Your task to perform on an android device: check android version Image 0: 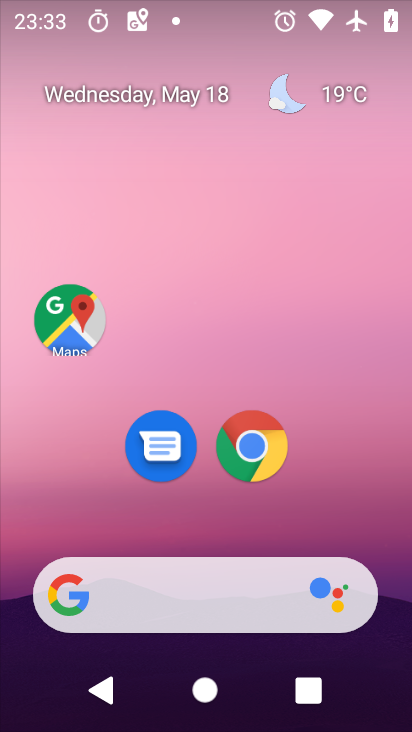
Step 0: press home button
Your task to perform on an android device: check android version Image 1: 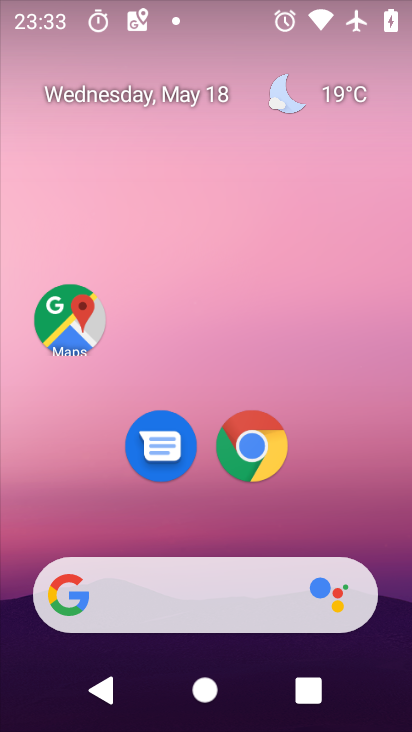
Step 1: drag from (221, 601) to (335, 42)
Your task to perform on an android device: check android version Image 2: 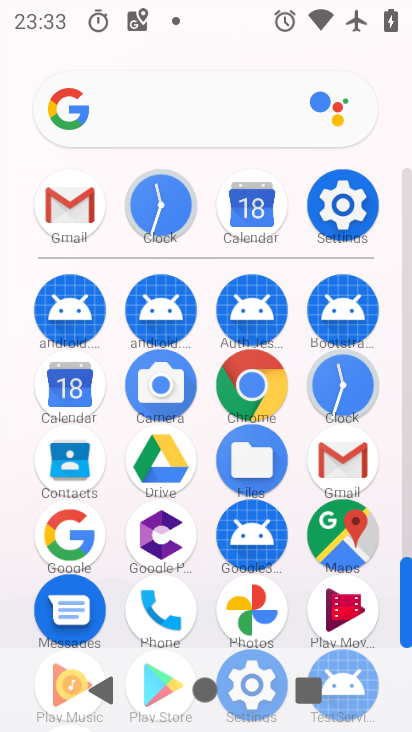
Step 2: click (345, 211)
Your task to perform on an android device: check android version Image 3: 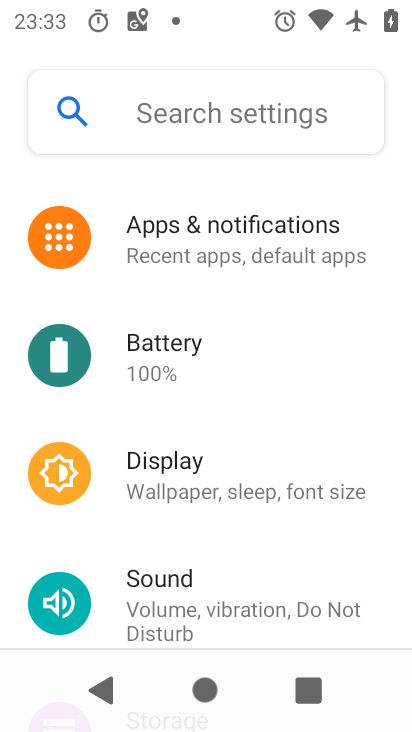
Step 3: drag from (241, 576) to (351, 69)
Your task to perform on an android device: check android version Image 4: 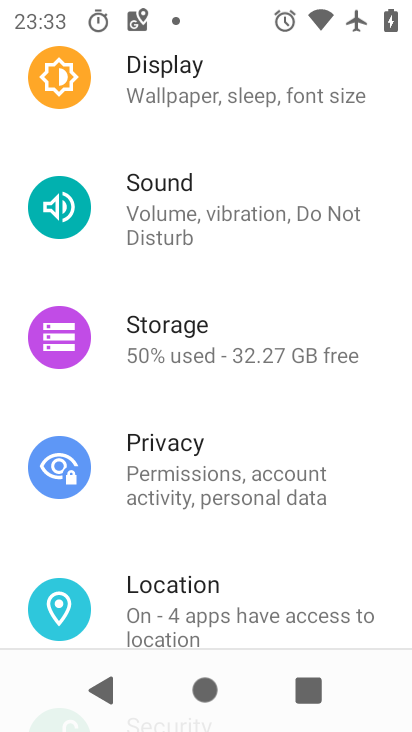
Step 4: drag from (242, 562) to (369, 47)
Your task to perform on an android device: check android version Image 5: 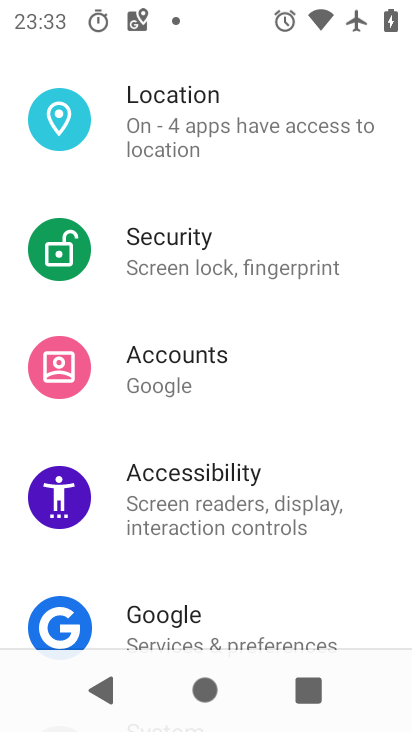
Step 5: drag from (248, 601) to (346, 3)
Your task to perform on an android device: check android version Image 6: 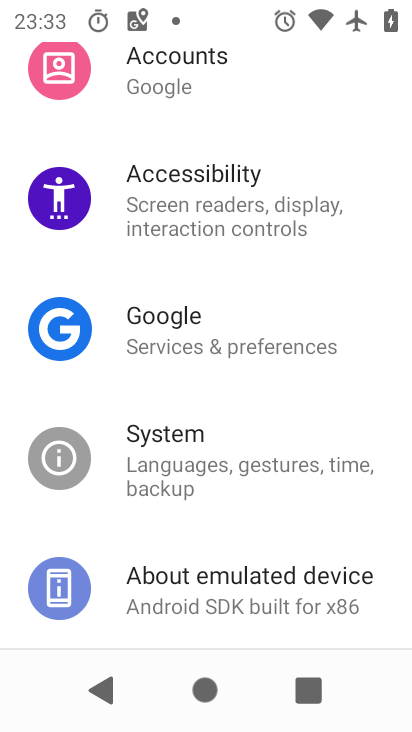
Step 6: click (203, 588)
Your task to perform on an android device: check android version Image 7: 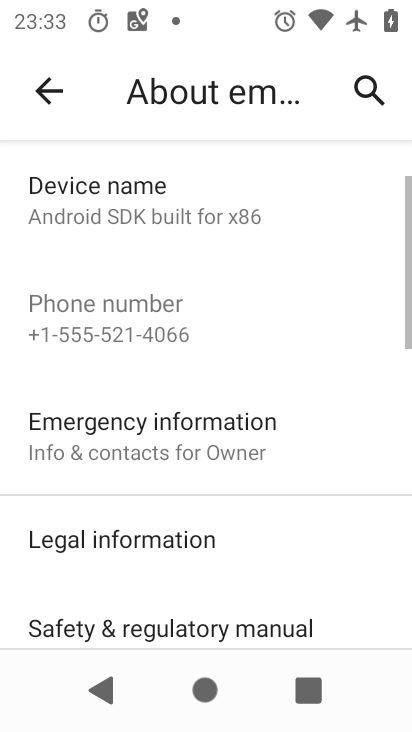
Step 7: drag from (207, 579) to (379, 116)
Your task to perform on an android device: check android version Image 8: 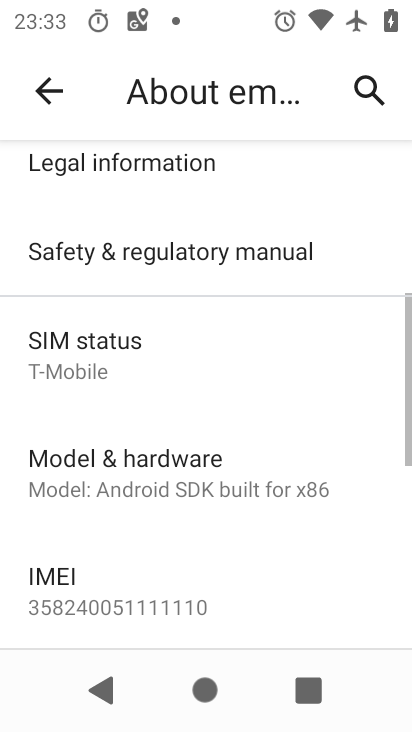
Step 8: drag from (206, 565) to (348, 234)
Your task to perform on an android device: check android version Image 9: 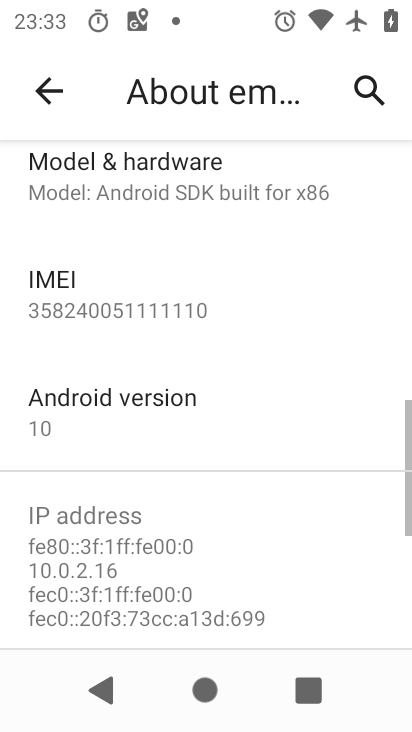
Step 9: click (201, 387)
Your task to perform on an android device: check android version Image 10: 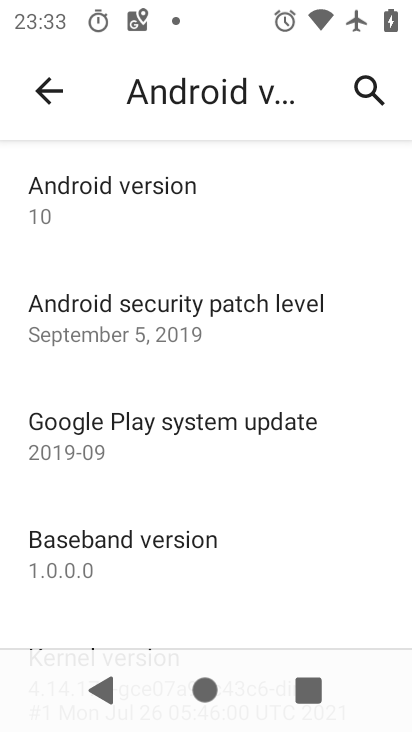
Step 10: task complete